Your task to perform on an android device: Go to battery settings Image 0: 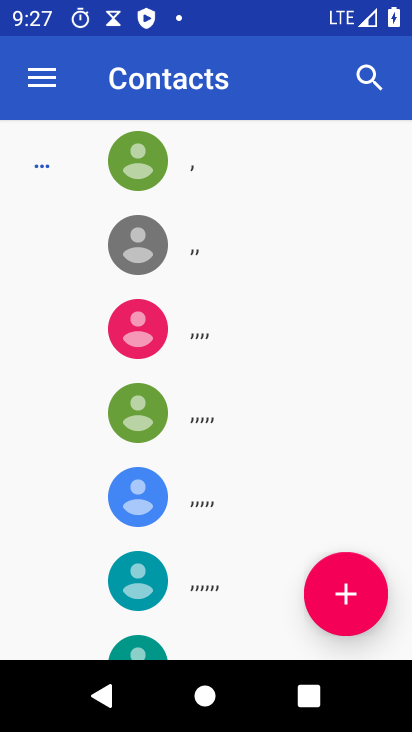
Step 0: press back button
Your task to perform on an android device: Go to battery settings Image 1: 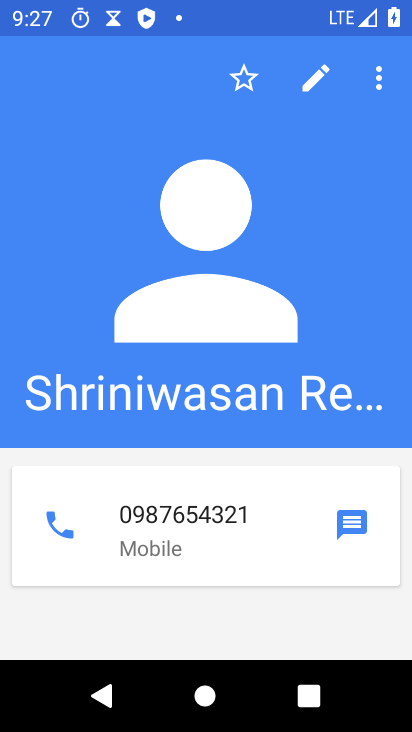
Step 1: press back button
Your task to perform on an android device: Go to battery settings Image 2: 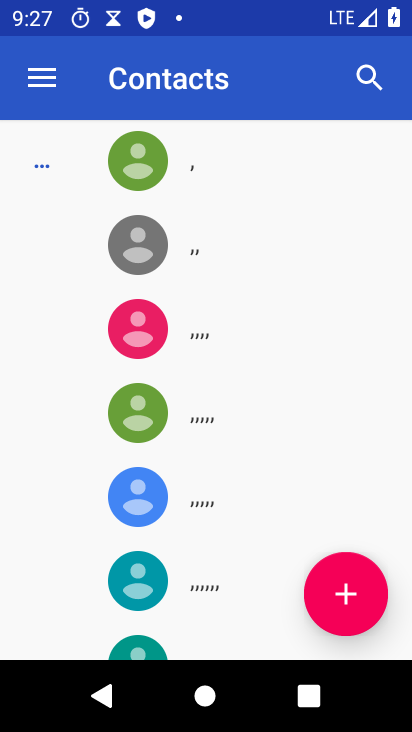
Step 2: press back button
Your task to perform on an android device: Go to battery settings Image 3: 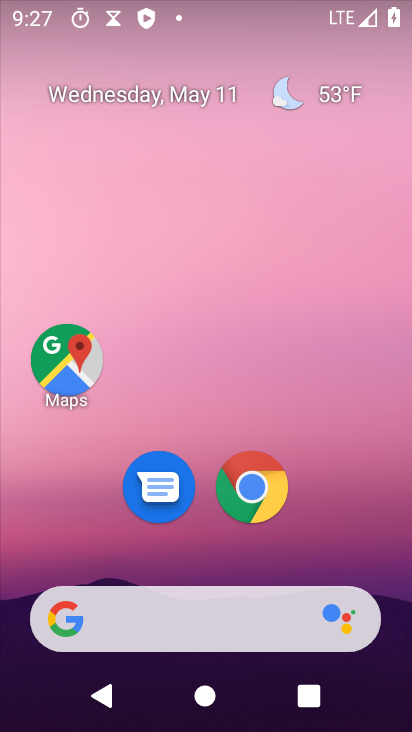
Step 3: drag from (327, 527) to (207, 24)
Your task to perform on an android device: Go to battery settings Image 4: 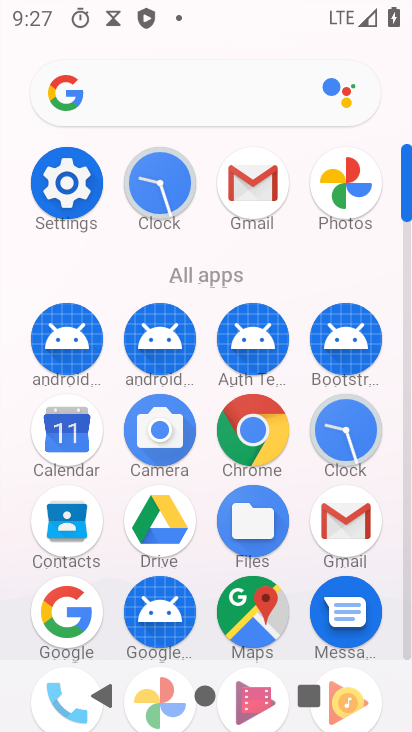
Step 4: click (65, 183)
Your task to perform on an android device: Go to battery settings Image 5: 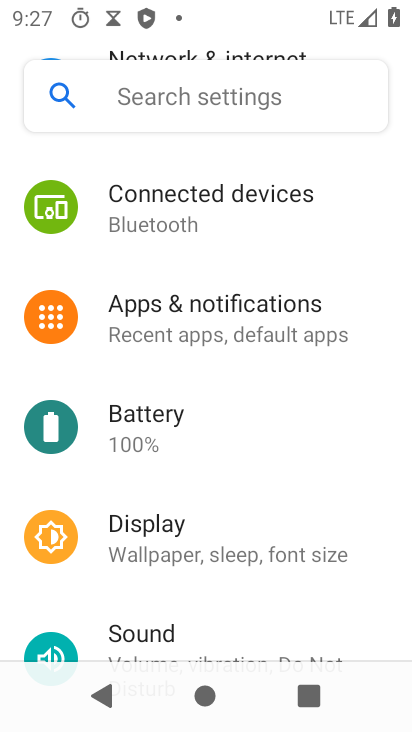
Step 5: click (171, 422)
Your task to perform on an android device: Go to battery settings Image 6: 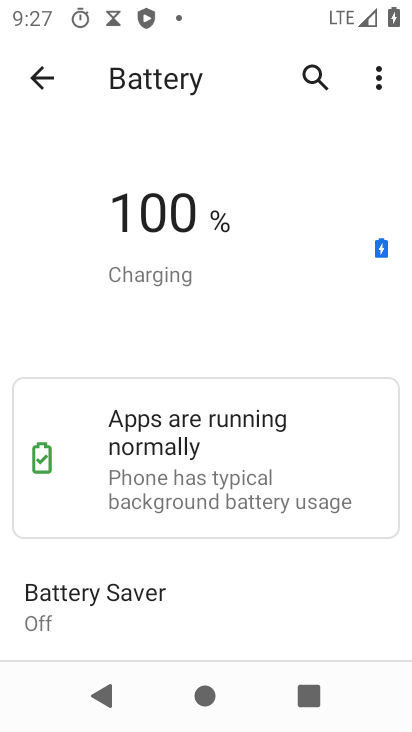
Step 6: task complete